Your task to perform on an android device: turn on notifications settings in the gmail app Image 0: 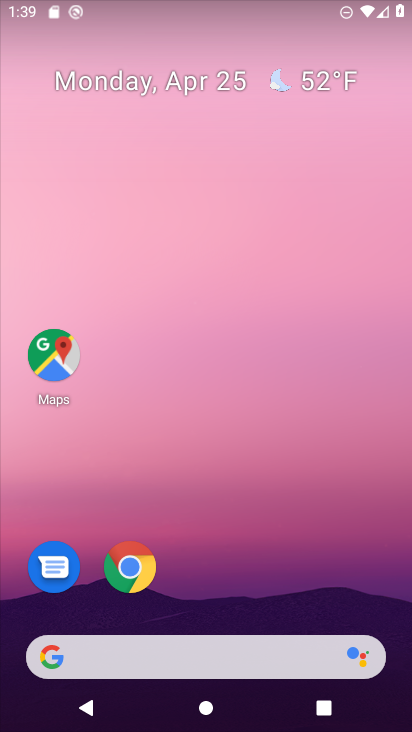
Step 0: drag from (239, 551) to (291, 13)
Your task to perform on an android device: turn on notifications settings in the gmail app Image 1: 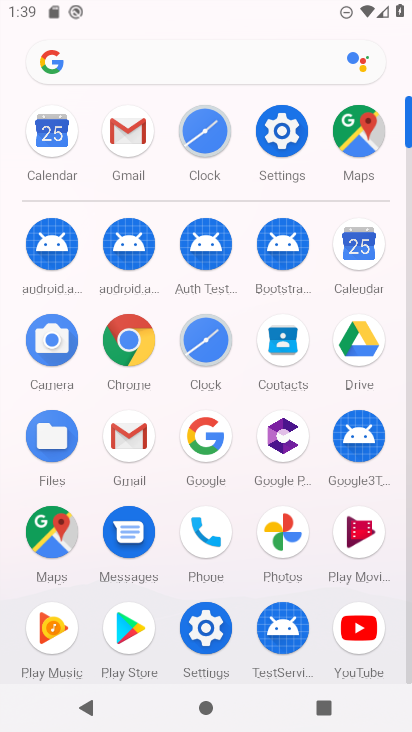
Step 1: click (133, 132)
Your task to perform on an android device: turn on notifications settings in the gmail app Image 2: 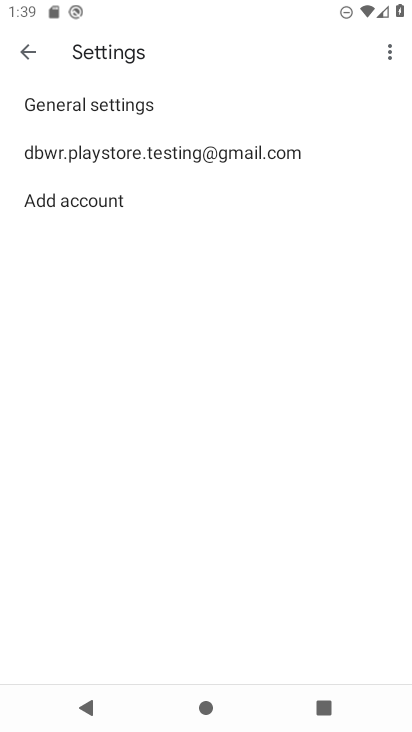
Step 2: click (133, 104)
Your task to perform on an android device: turn on notifications settings in the gmail app Image 3: 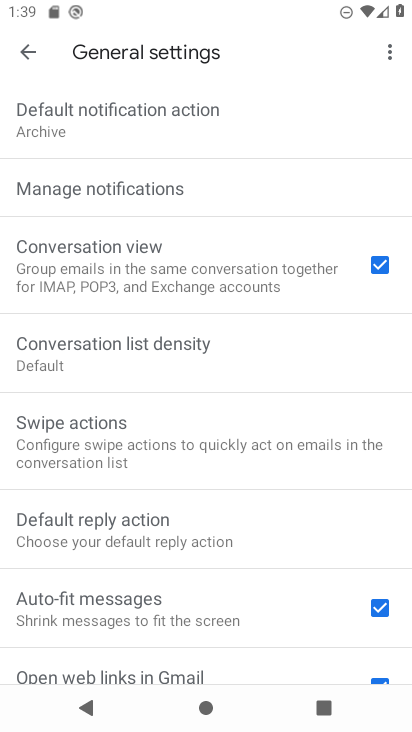
Step 3: click (163, 180)
Your task to perform on an android device: turn on notifications settings in the gmail app Image 4: 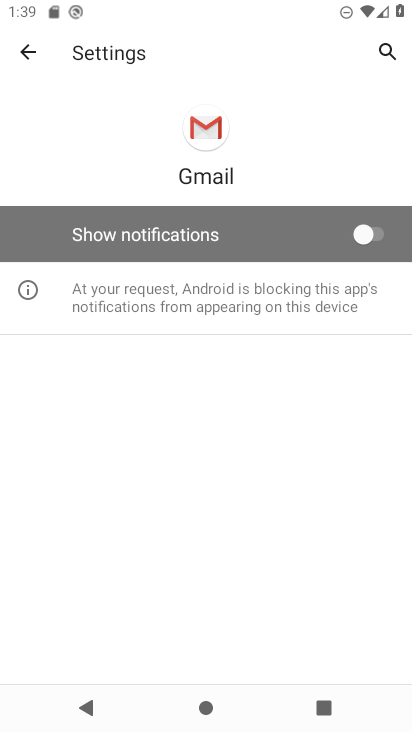
Step 4: click (372, 236)
Your task to perform on an android device: turn on notifications settings in the gmail app Image 5: 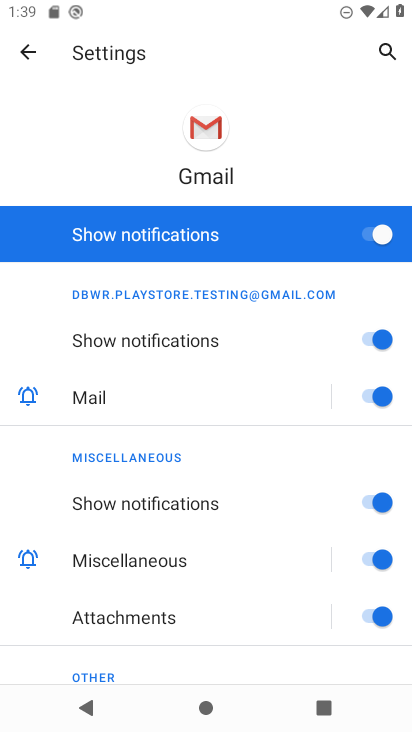
Step 5: task complete